Your task to perform on an android device: Open the phone app and click the voicemail tab. Image 0: 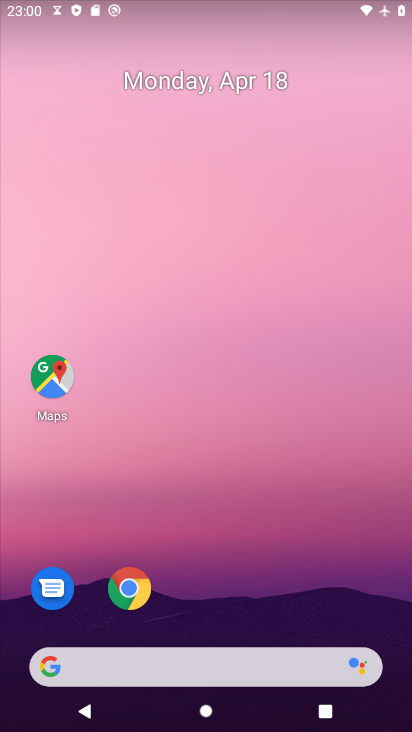
Step 0: drag from (333, 522) to (329, 67)
Your task to perform on an android device: Open the phone app and click the voicemail tab. Image 1: 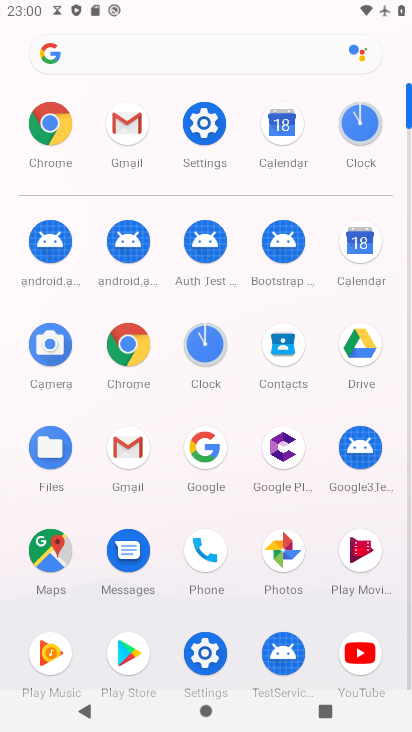
Step 1: drag from (9, 569) to (5, 424)
Your task to perform on an android device: Open the phone app and click the voicemail tab. Image 2: 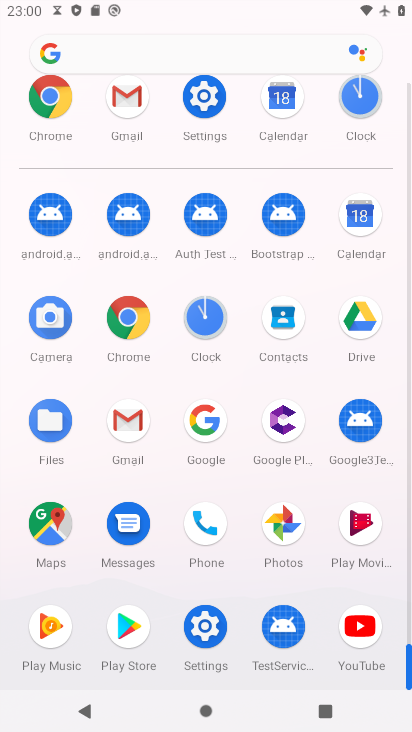
Step 2: click (204, 517)
Your task to perform on an android device: Open the phone app and click the voicemail tab. Image 3: 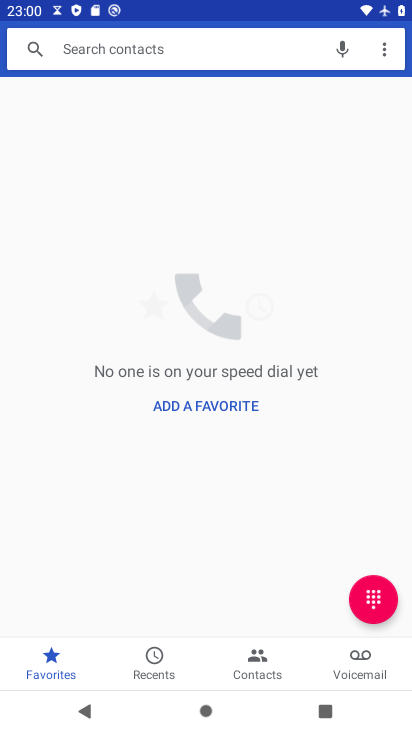
Step 3: click (372, 667)
Your task to perform on an android device: Open the phone app and click the voicemail tab. Image 4: 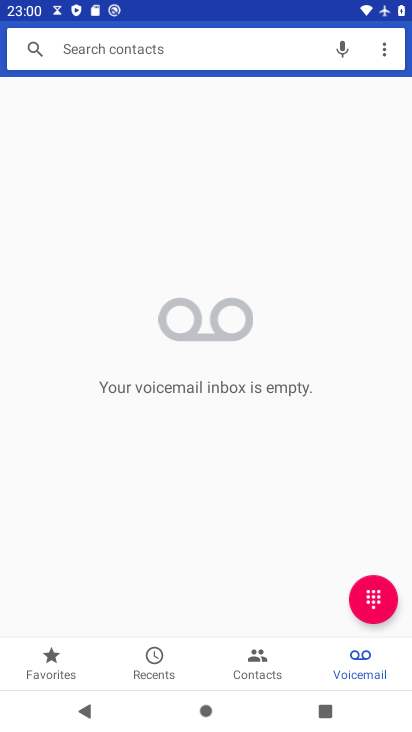
Step 4: task complete